Your task to perform on an android device: change the clock display to show seconds Image 0: 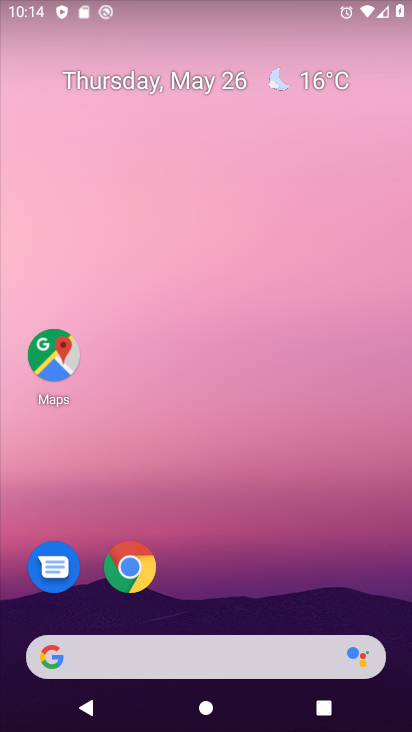
Step 0: drag from (393, 697) to (328, 216)
Your task to perform on an android device: change the clock display to show seconds Image 1: 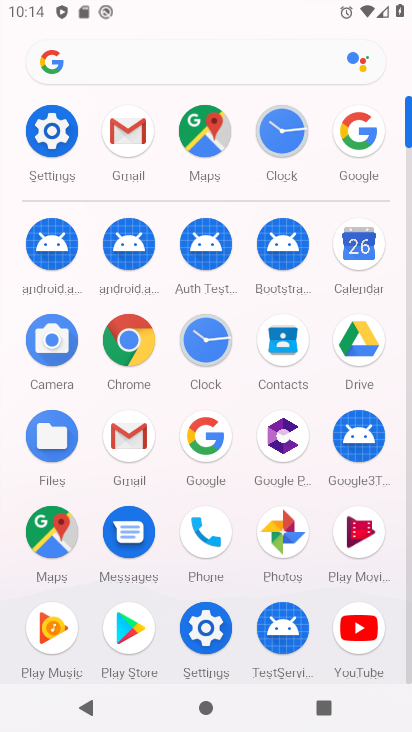
Step 1: click (211, 347)
Your task to perform on an android device: change the clock display to show seconds Image 2: 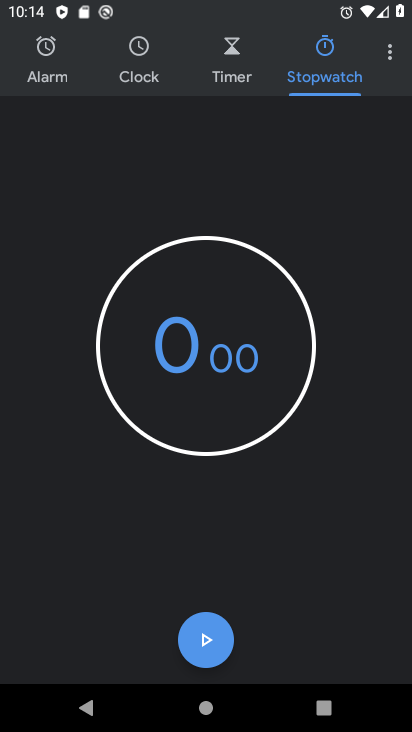
Step 2: click (390, 55)
Your task to perform on an android device: change the clock display to show seconds Image 3: 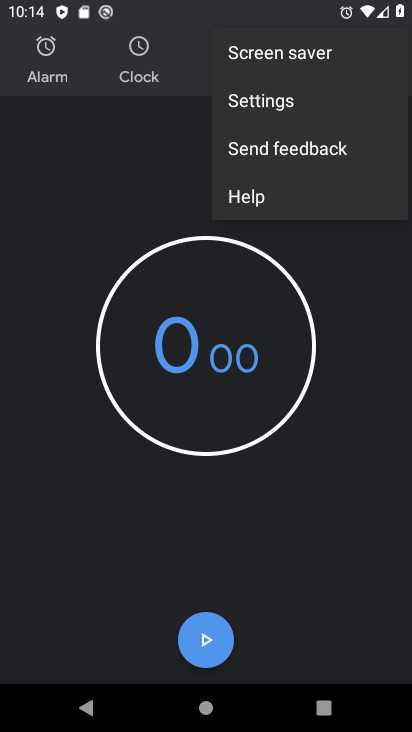
Step 3: click (225, 98)
Your task to perform on an android device: change the clock display to show seconds Image 4: 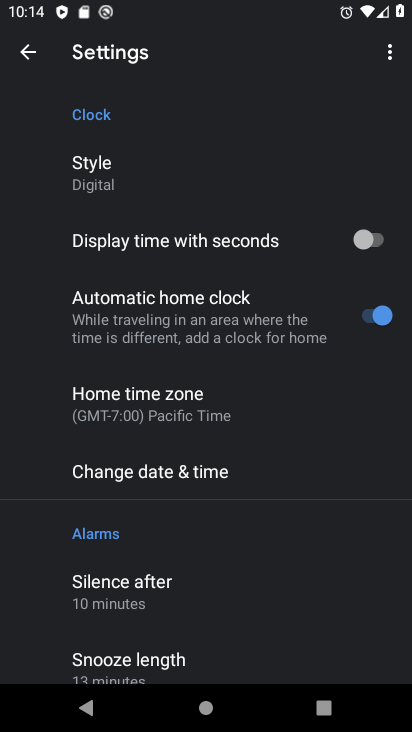
Step 4: click (370, 244)
Your task to perform on an android device: change the clock display to show seconds Image 5: 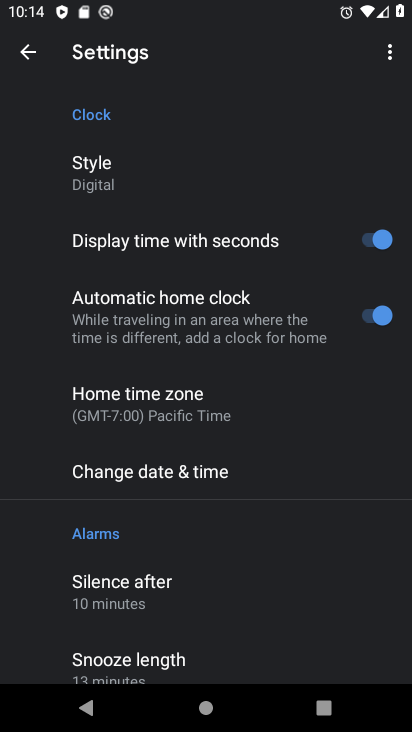
Step 5: task complete